Your task to perform on an android device: snooze an email in the gmail app Image 0: 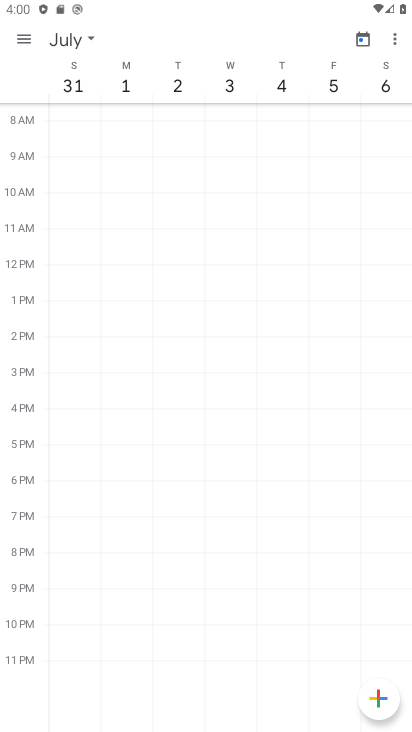
Step 0: press home button
Your task to perform on an android device: snooze an email in the gmail app Image 1: 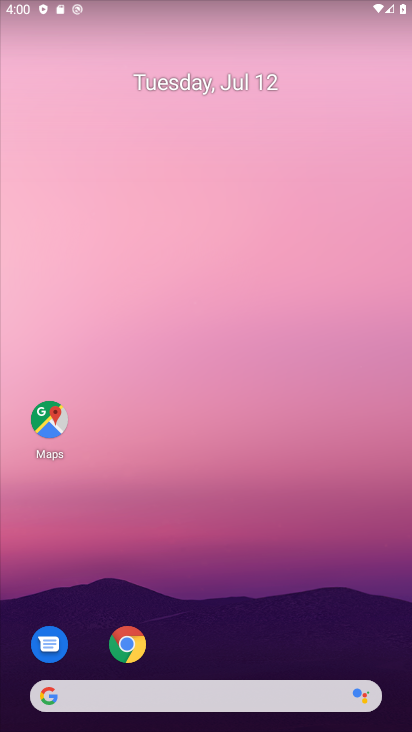
Step 1: drag from (231, 680) to (170, 45)
Your task to perform on an android device: snooze an email in the gmail app Image 2: 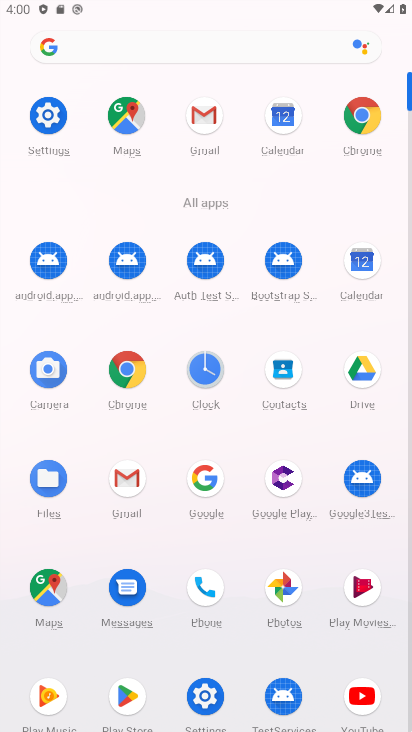
Step 2: click (190, 132)
Your task to perform on an android device: snooze an email in the gmail app Image 3: 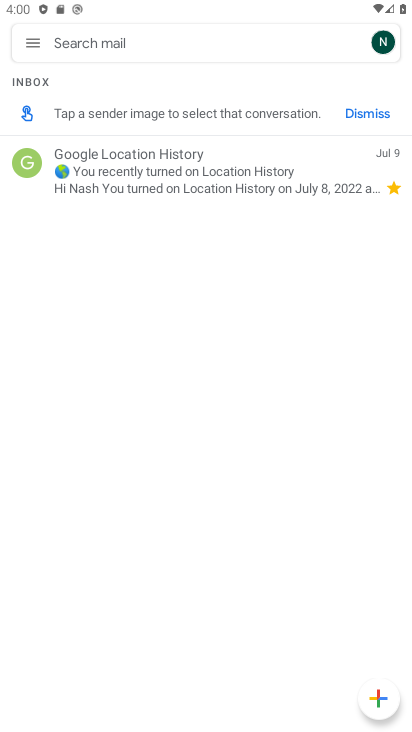
Step 3: click (28, 172)
Your task to perform on an android device: snooze an email in the gmail app Image 4: 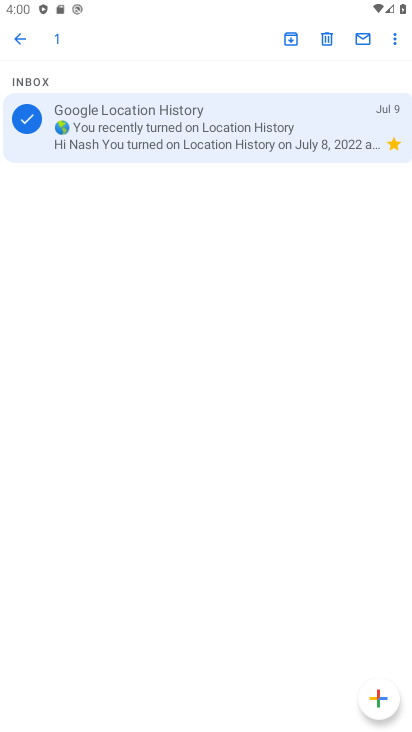
Step 4: click (396, 41)
Your task to perform on an android device: snooze an email in the gmail app Image 5: 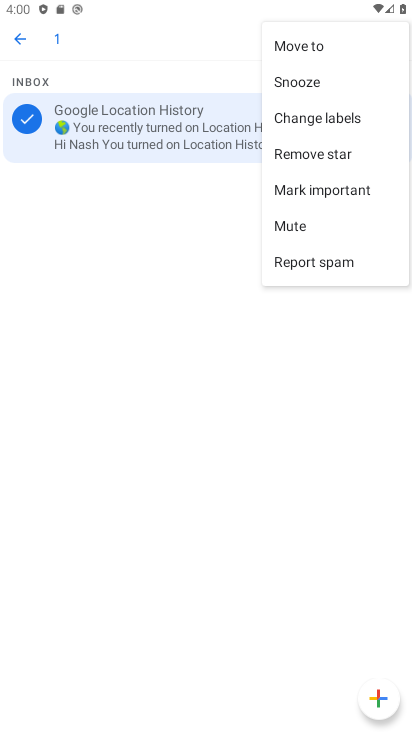
Step 5: click (322, 78)
Your task to perform on an android device: snooze an email in the gmail app Image 6: 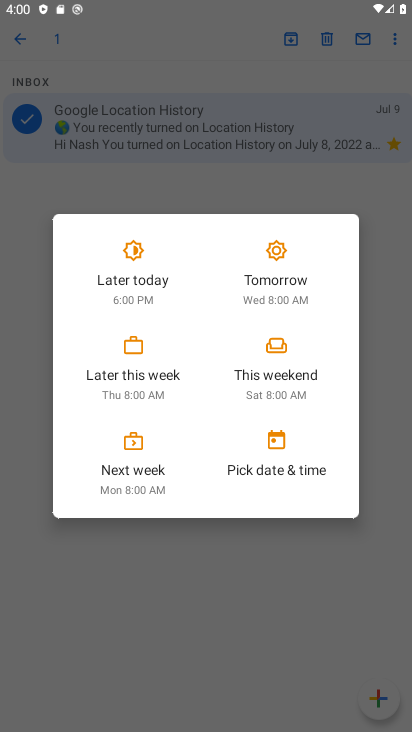
Step 6: click (140, 284)
Your task to perform on an android device: snooze an email in the gmail app Image 7: 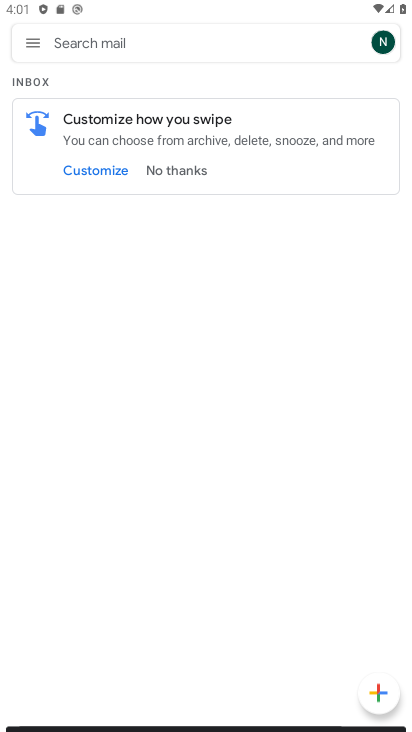
Step 7: task complete